Your task to perform on an android device: Open Wikipedia Image 0: 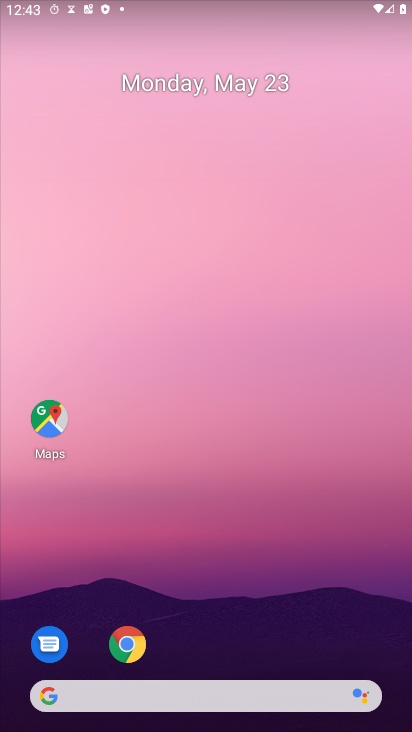
Step 0: click (131, 645)
Your task to perform on an android device: Open Wikipedia Image 1: 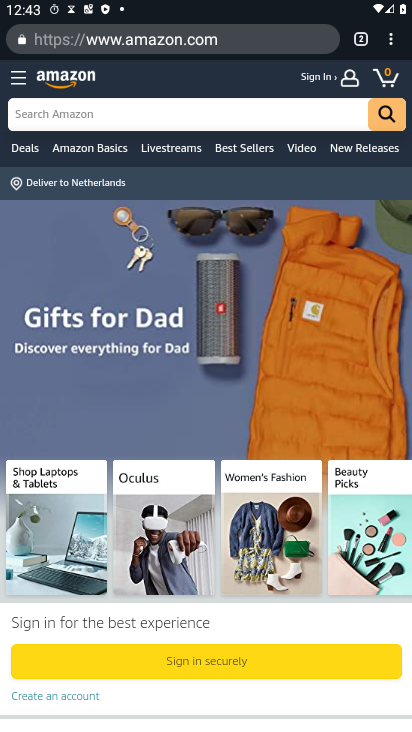
Step 1: click (363, 36)
Your task to perform on an android device: Open Wikipedia Image 2: 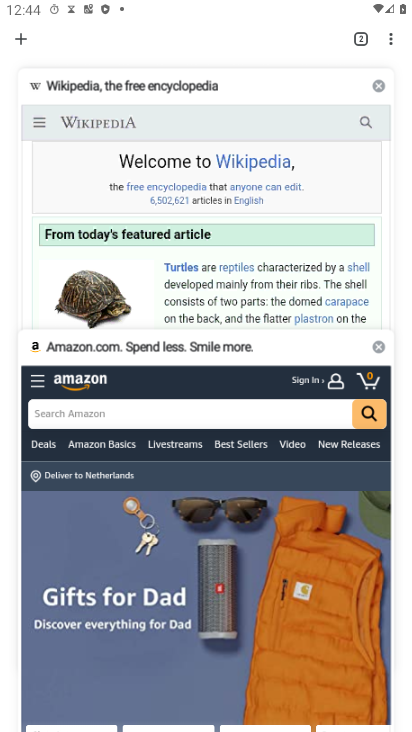
Step 2: click (251, 155)
Your task to perform on an android device: Open Wikipedia Image 3: 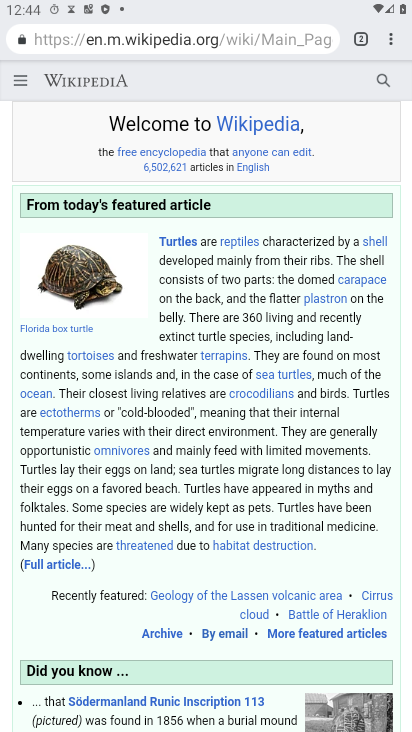
Step 3: task complete